Your task to perform on an android device: Open battery settings Image 0: 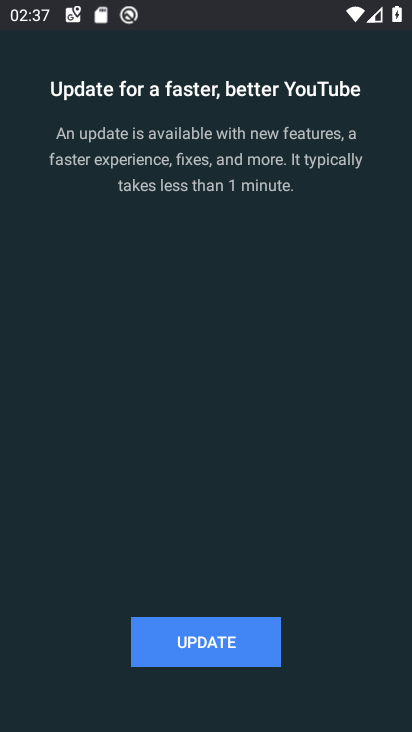
Step 0: press home button
Your task to perform on an android device: Open battery settings Image 1: 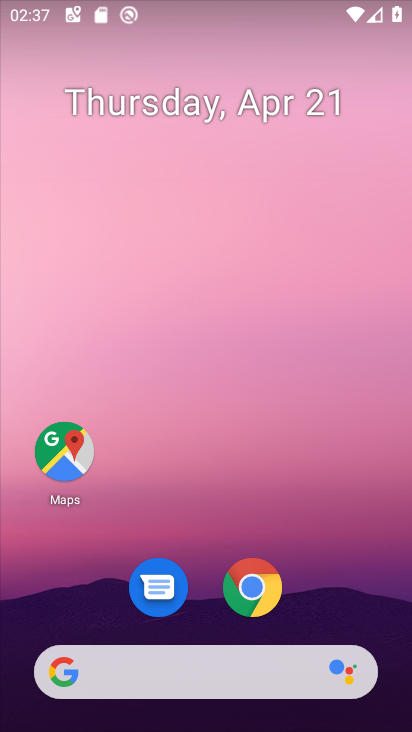
Step 1: drag from (337, 609) to (349, 133)
Your task to perform on an android device: Open battery settings Image 2: 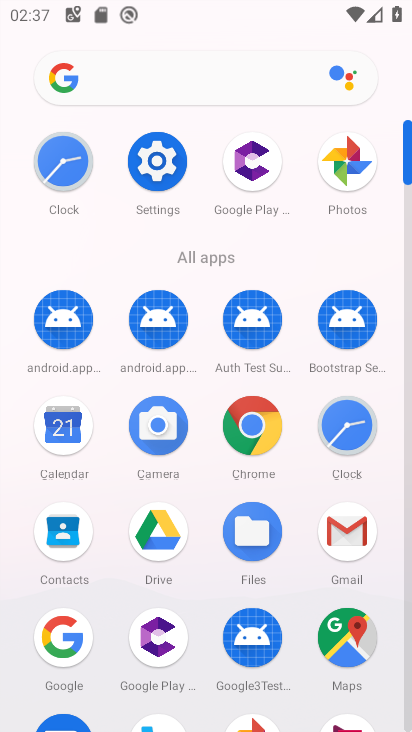
Step 2: click (169, 176)
Your task to perform on an android device: Open battery settings Image 3: 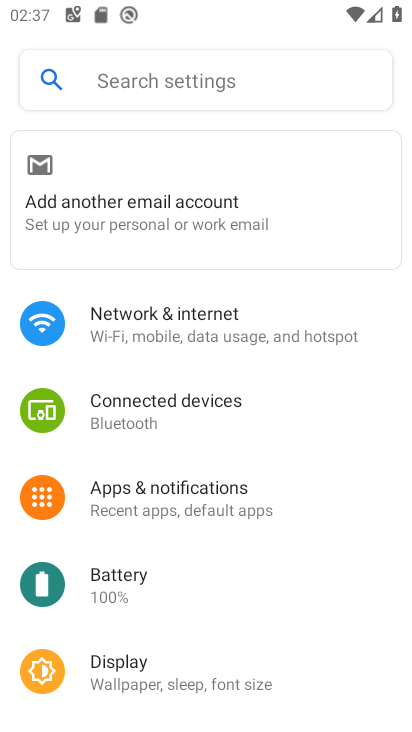
Step 3: drag from (338, 565) to (344, 401)
Your task to perform on an android device: Open battery settings Image 4: 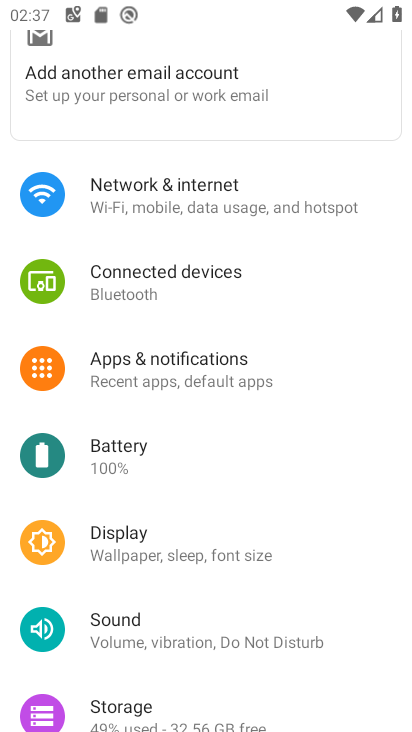
Step 4: drag from (351, 566) to (358, 377)
Your task to perform on an android device: Open battery settings Image 5: 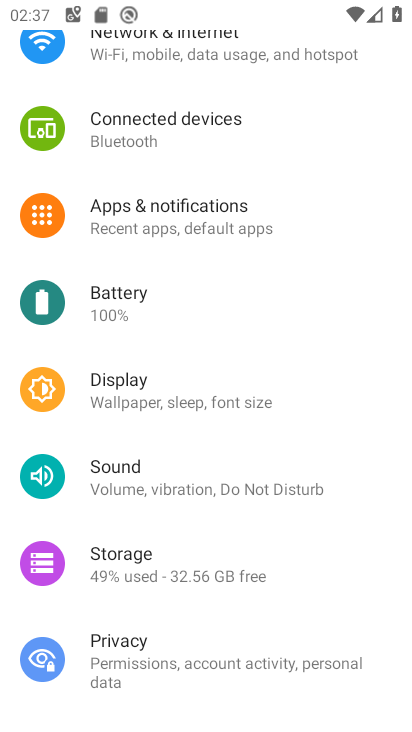
Step 5: drag from (339, 584) to (362, 314)
Your task to perform on an android device: Open battery settings Image 6: 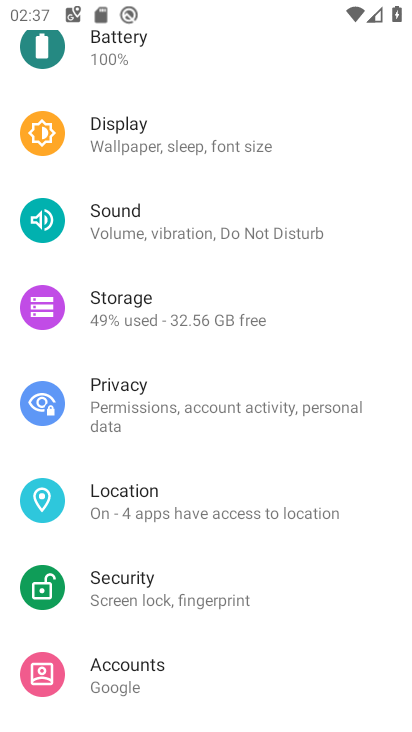
Step 6: drag from (341, 636) to (363, 341)
Your task to perform on an android device: Open battery settings Image 7: 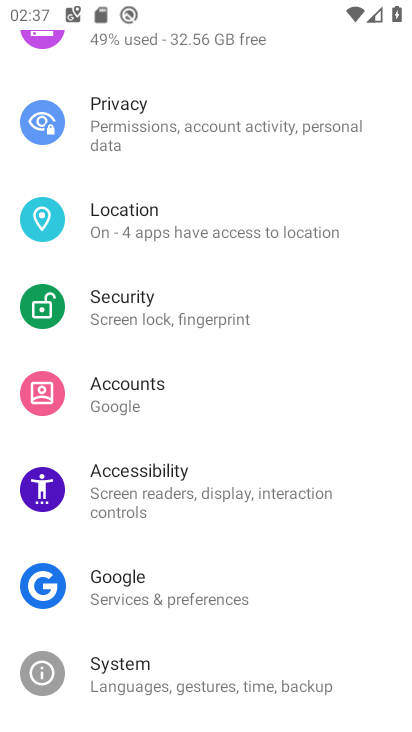
Step 7: drag from (345, 600) to (375, 300)
Your task to perform on an android device: Open battery settings Image 8: 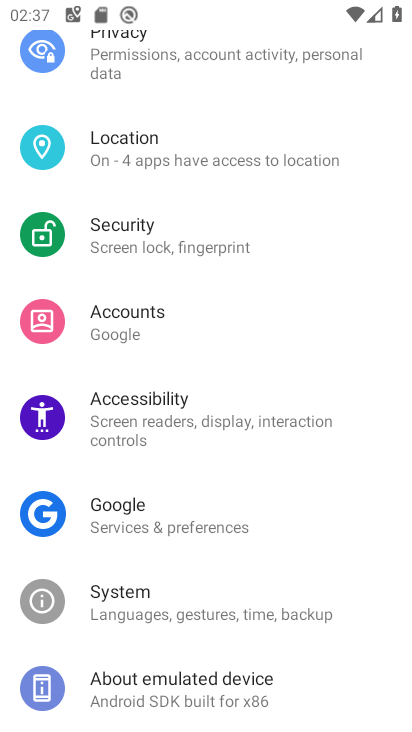
Step 8: drag from (349, 647) to (378, 401)
Your task to perform on an android device: Open battery settings Image 9: 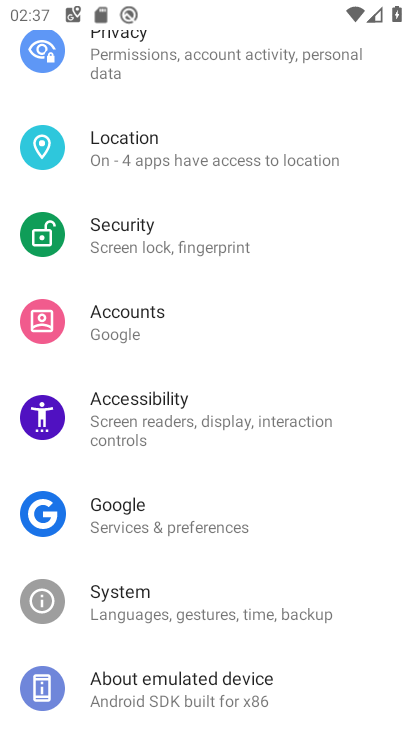
Step 9: drag from (386, 306) to (368, 492)
Your task to perform on an android device: Open battery settings Image 10: 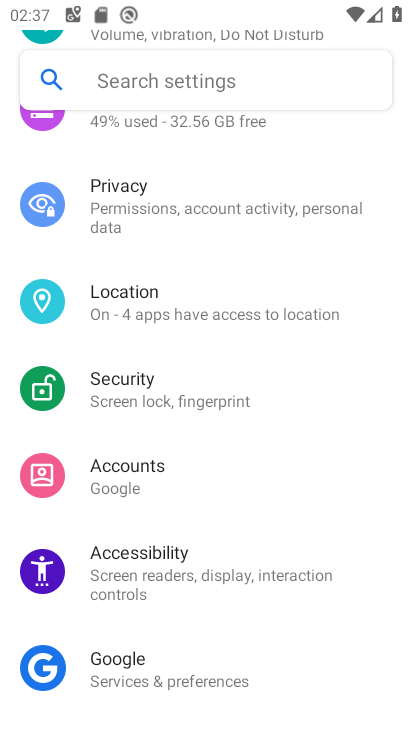
Step 10: drag from (387, 369) to (376, 528)
Your task to perform on an android device: Open battery settings Image 11: 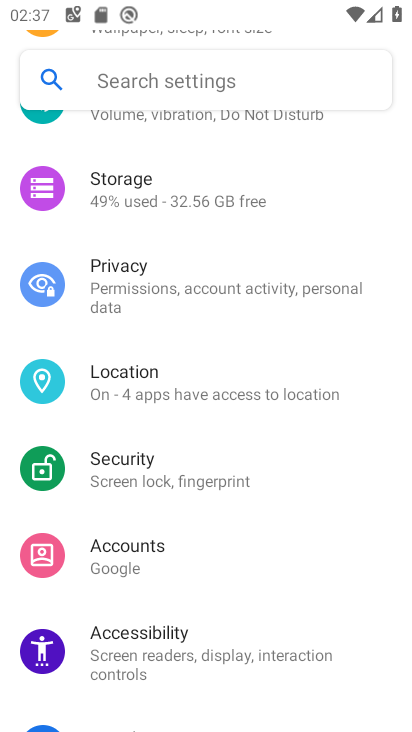
Step 11: drag from (379, 318) to (369, 467)
Your task to perform on an android device: Open battery settings Image 12: 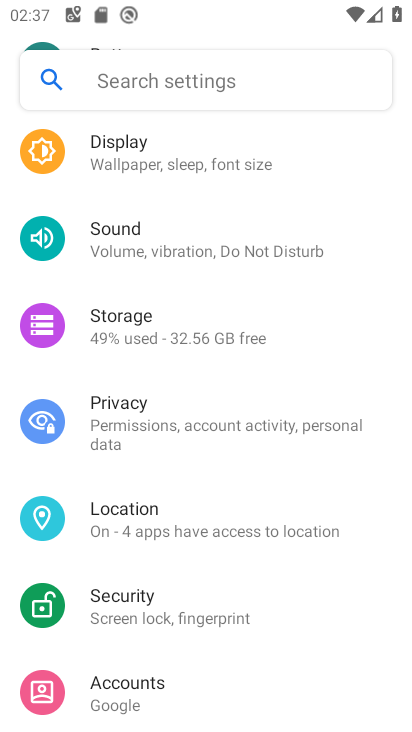
Step 12: drag from (373, 315) to (361, 468)
Your task to perform on an android device: Open battery settings Image 13: 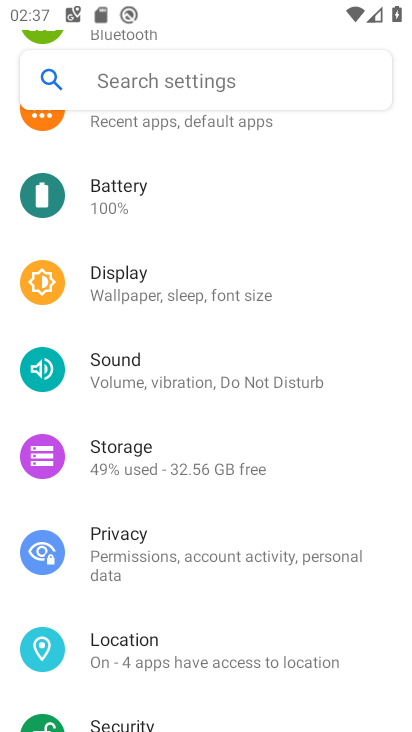
Step 13: drag from (366, 282) to (361, 452)
Your task to perform on an android device: Open battery settings Image 14: 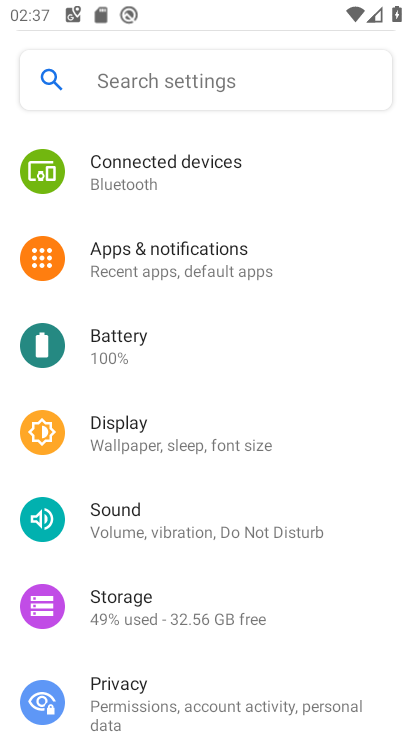
Step 14: click (148, 341)
Your task to perform on an android device: Open battery settings Image 15: 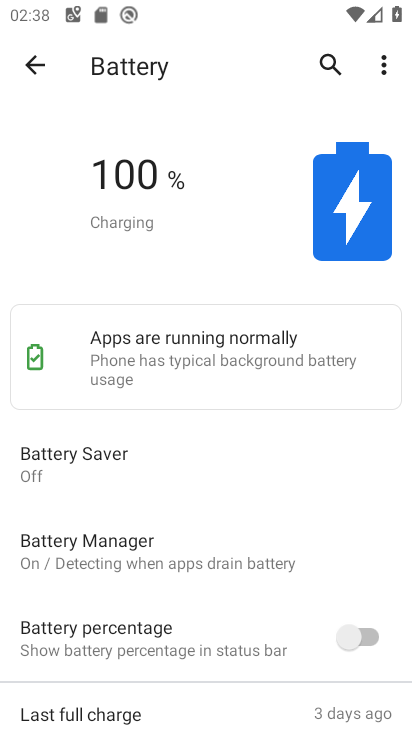
Step 15: task complete